Your task to perform on an android device: Open Chrome and go to settings Image 0: 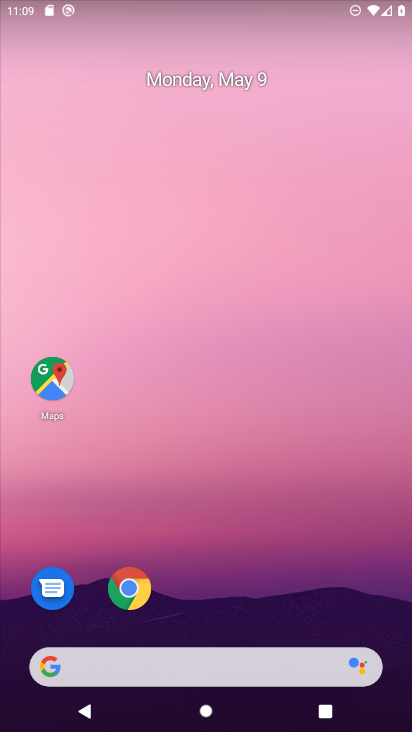
Step 0: click (139, 576)
Your task to perform on an android device: Open Chrome and go to settings Image 1: 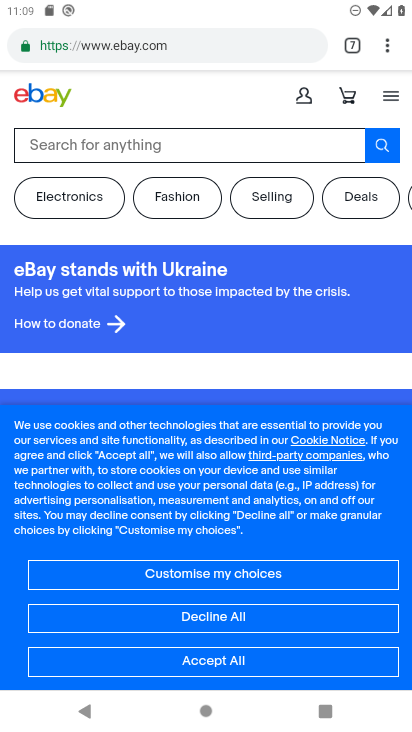
Step 1: click (386, 38)
Your task to perform on an android device: Open Chrome and go to settings Image 2: 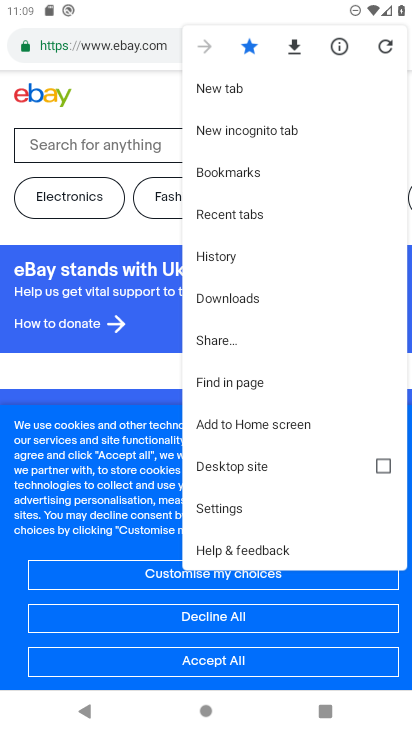
Step 2: click (237, 504)
Your task to perform on an android device: Open Chrome and go to settings Image 3: 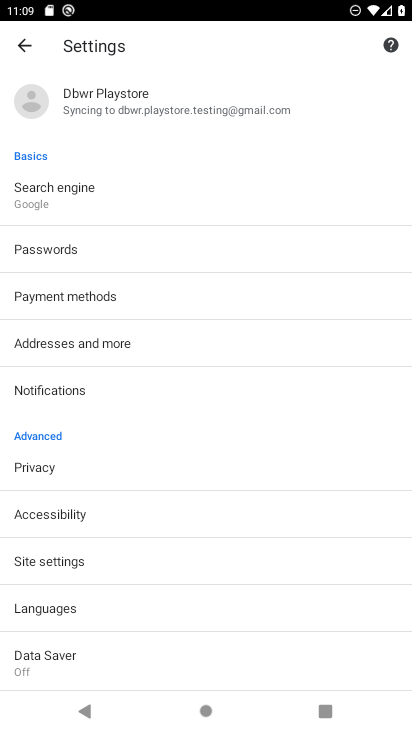
Step 3: task complete